Your task to perform on an android device: change the clock display to show seconds Image 0: 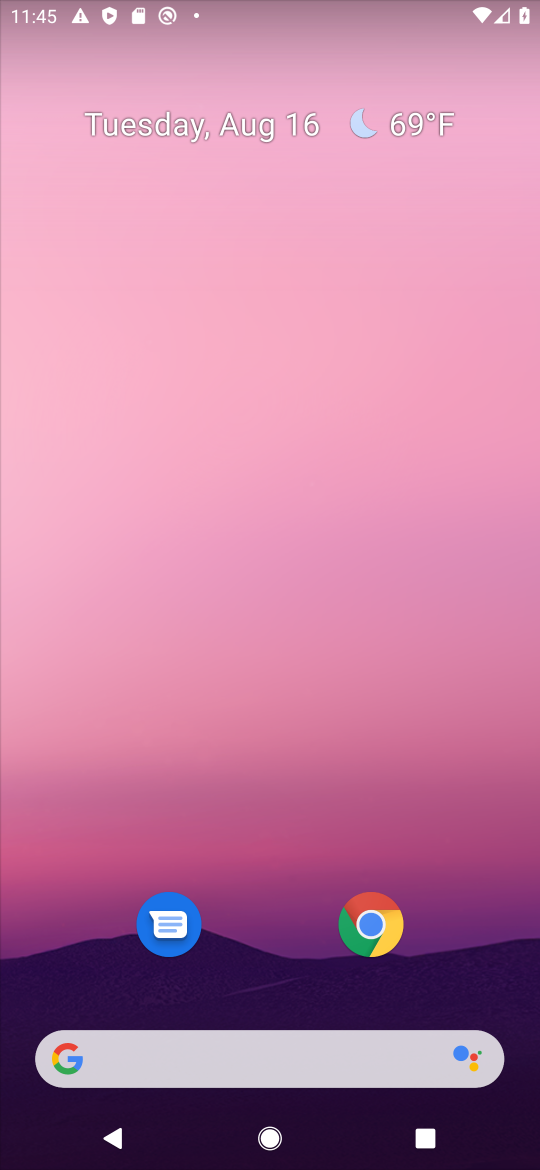
Step 0: drag from (289, 1004) to (293, 182)
Your task to perform on an android device: change the clock display to show seconds Image 1: 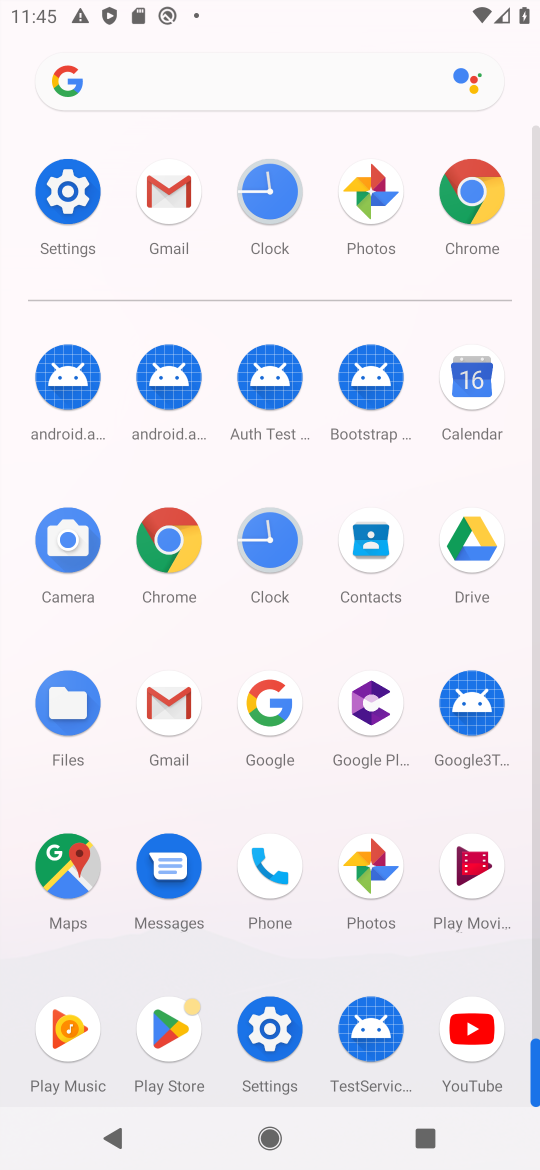
Step 1: click (288, 539)
Your task to perform on an android device: change the clock display to show seconds Image 2: 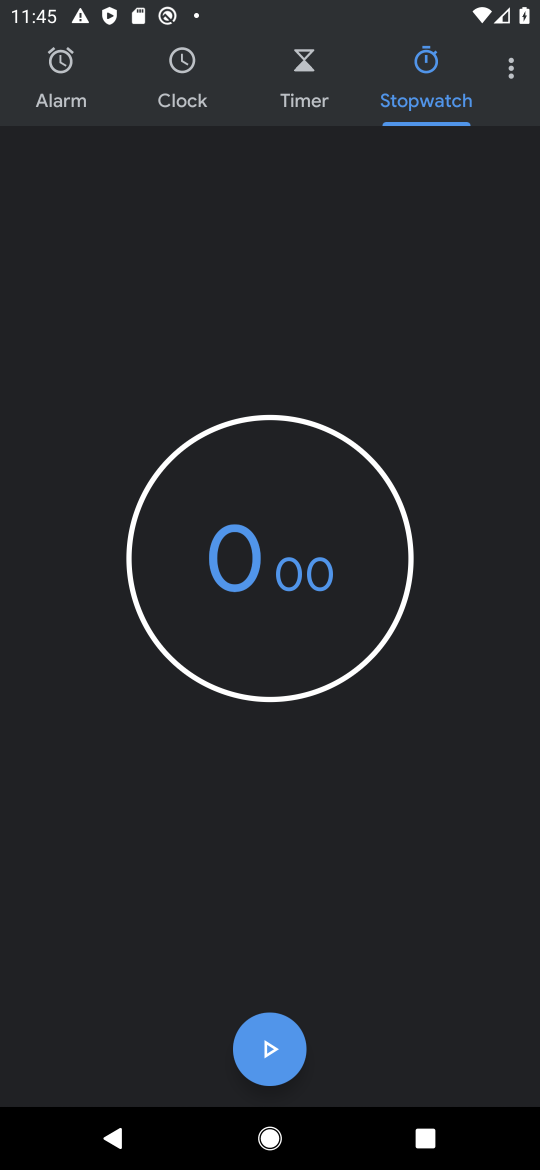
Step 2: click (523, 62)
Your task to perform on an android device: change the clock display to show seconds Image 3: 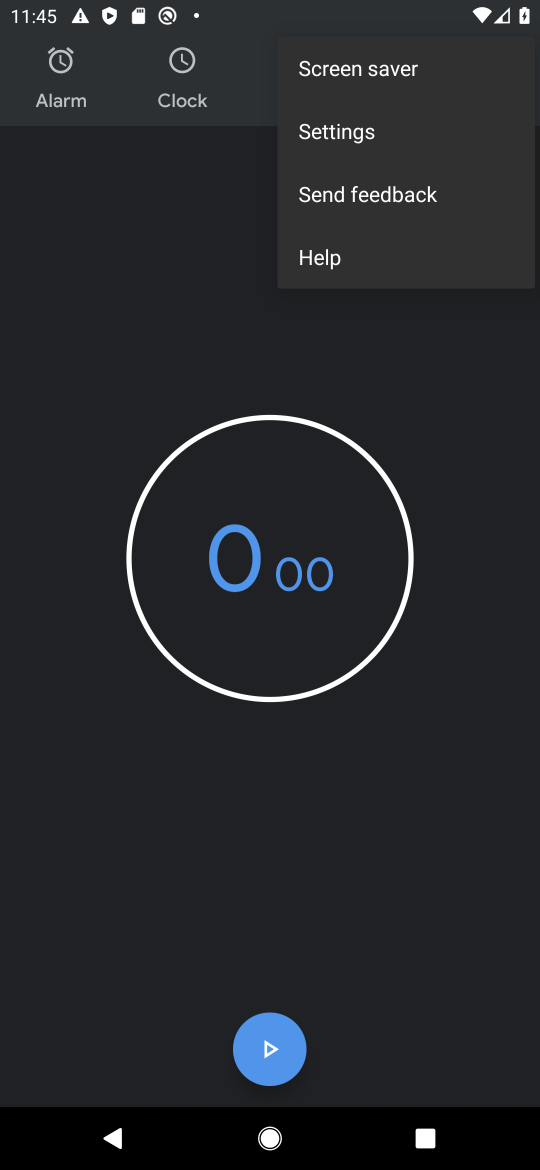
Step 3: click (329, 135)
Your task to perform on an android device: change the clock display to show seconds Image 4: 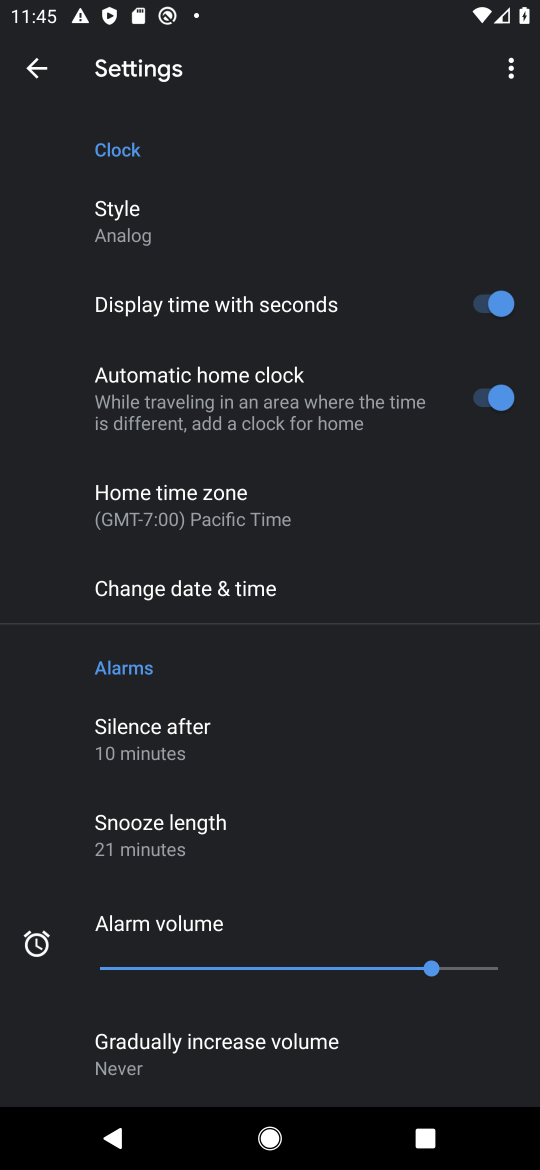
Step 4: task complete